Your task to perform on an android device: Play the last video I watched on Youtube Image 0: 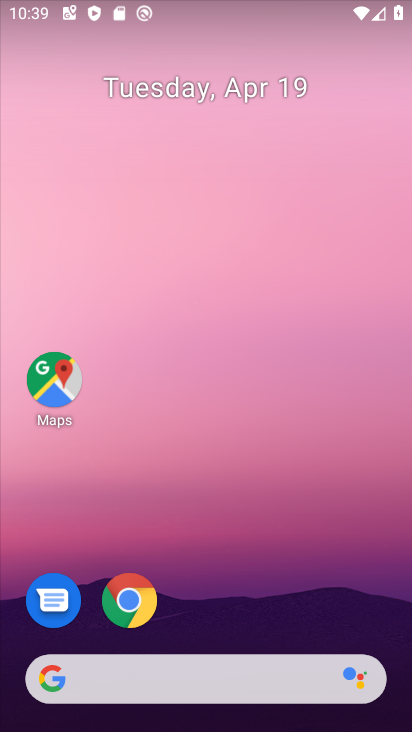
Step 0: drag from (232, 573) to (335, 61)
Your task to perform on an android device: Play the last video I watched on Youtube Image 1: 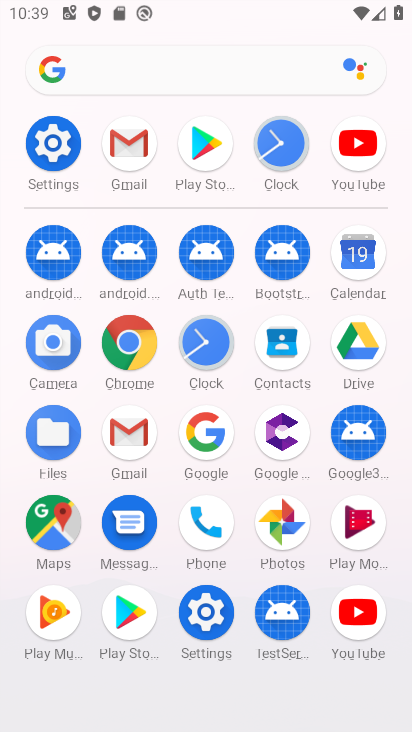
Step 1: click (364, 632)
Your task to perform on an android device: Play the last video I watched on Youtube Image 2: 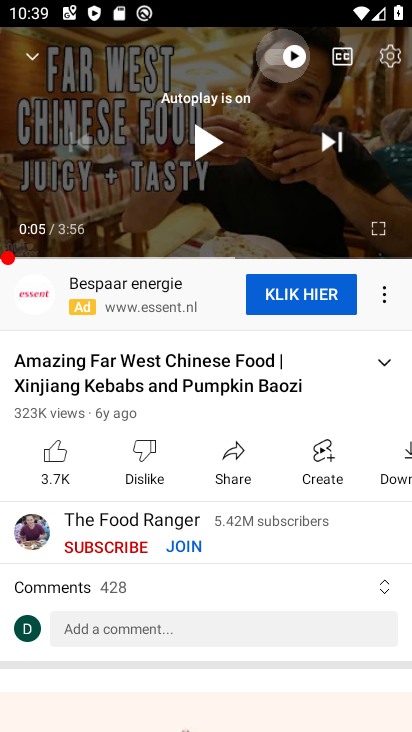
Step 2: click (200, 139)
Your task to perform on an android device: Play the last video I watched on Youtube Image 3: 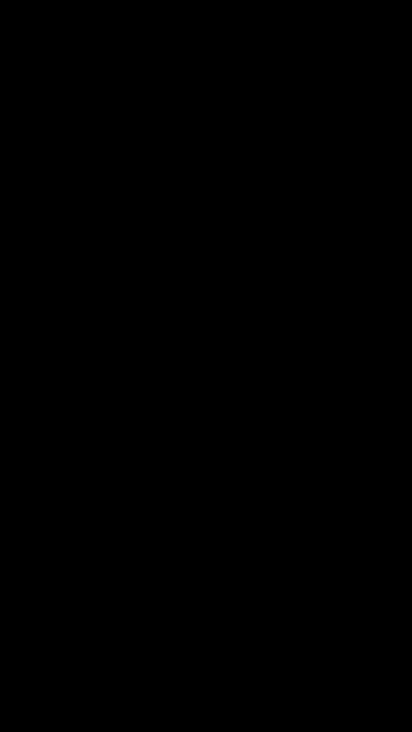
Step 3: task complete